Your task to perform on an android device: allow cookies in the chrome app Image 0: 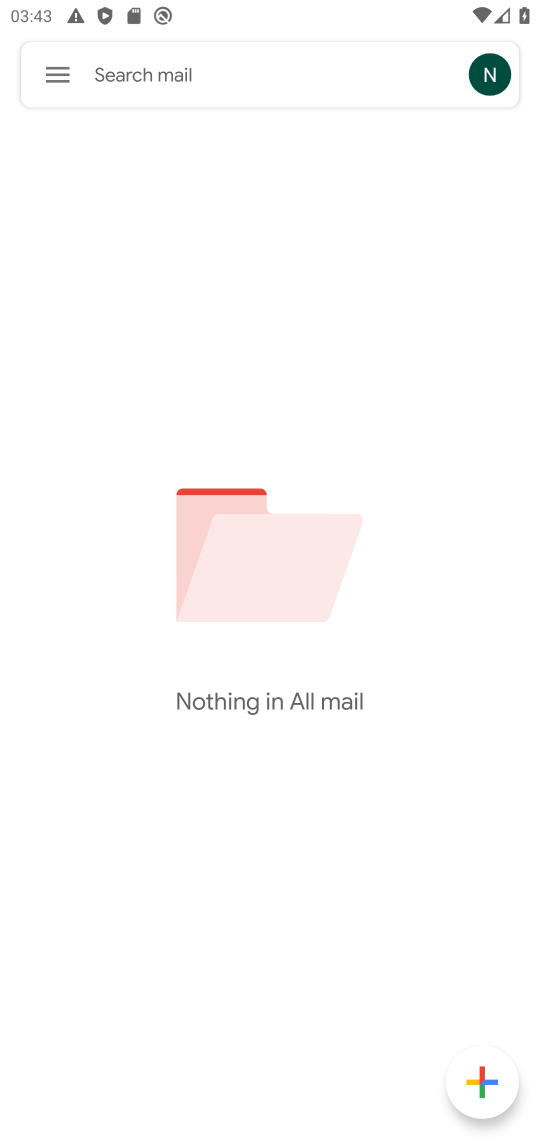
Step 0: press home button
Your task to perform on an android device: allow cookies in the chrome app Image 1: 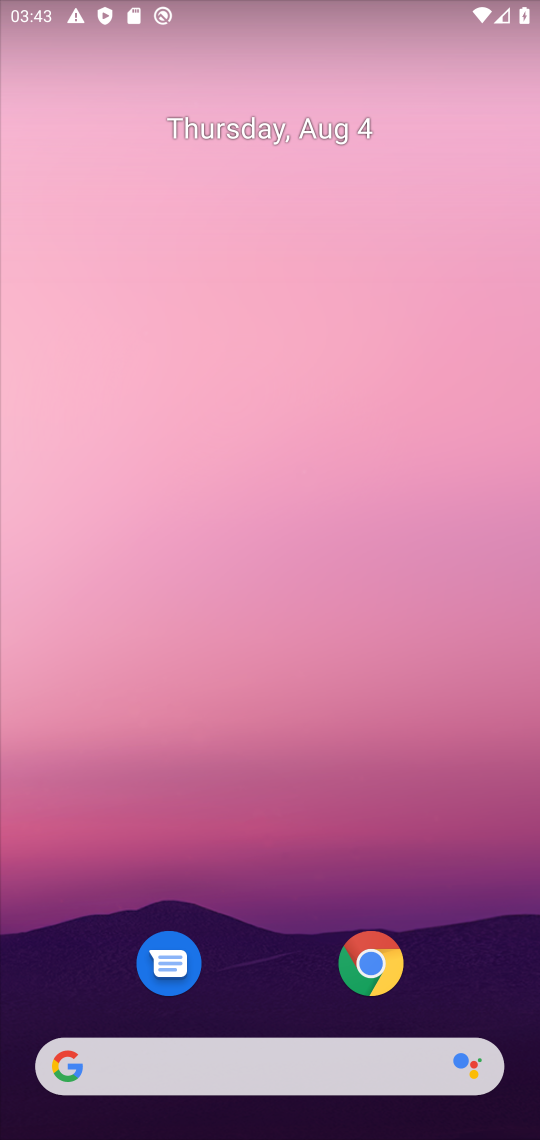
Step 1: click (366, 973)
Your task to perform on an android device: allow cookies in the chrome app Image 2: 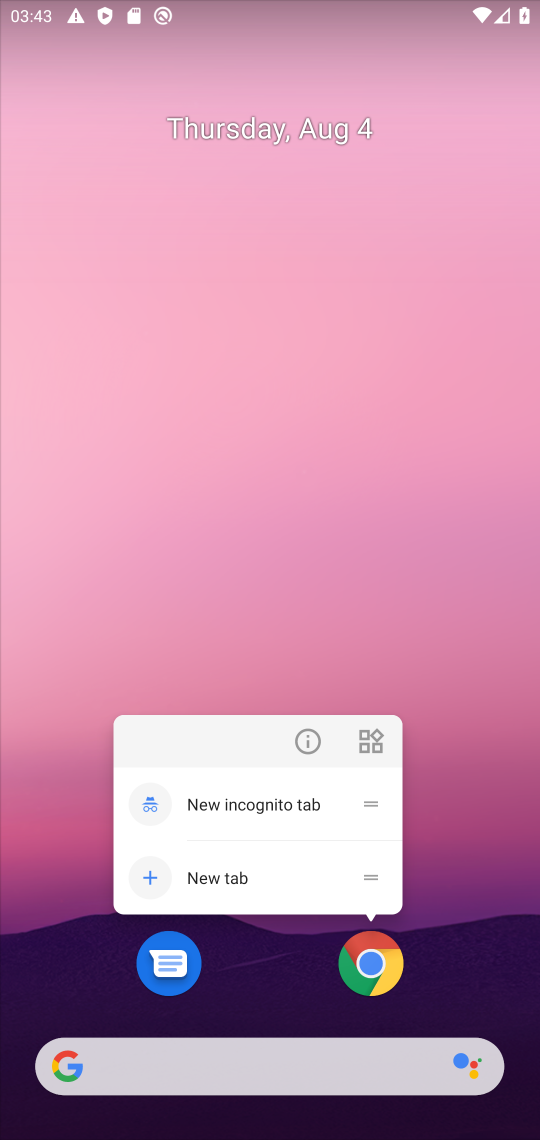
Step 2: click (385, 963)
Your task to perform on an android device: allow cookies in the chrome app Image 3: 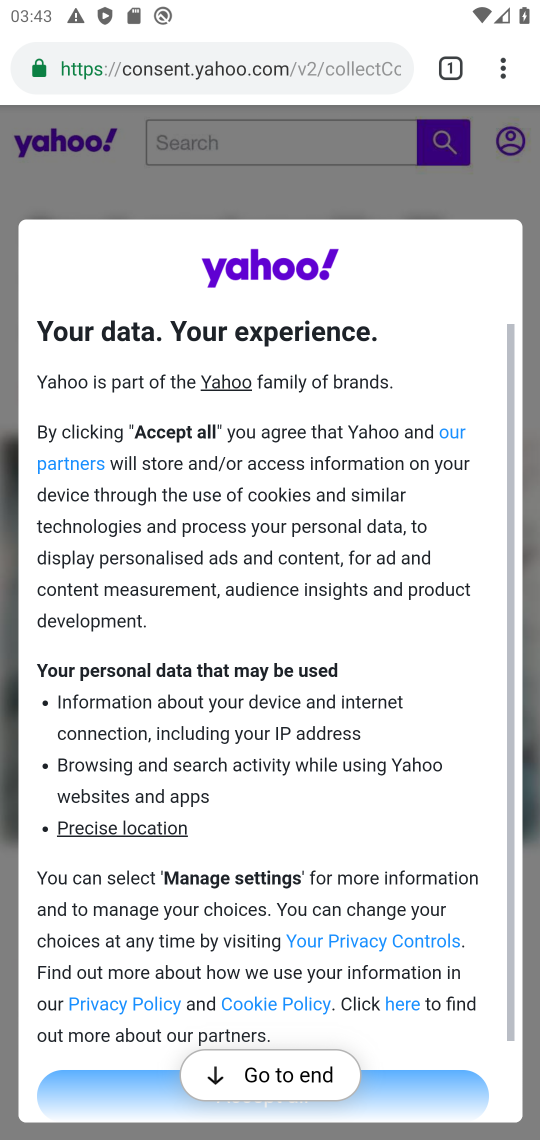
Step 3: click (506, 71)
Your task to perform on an android device: allow cookies in the chrome app Image 4: 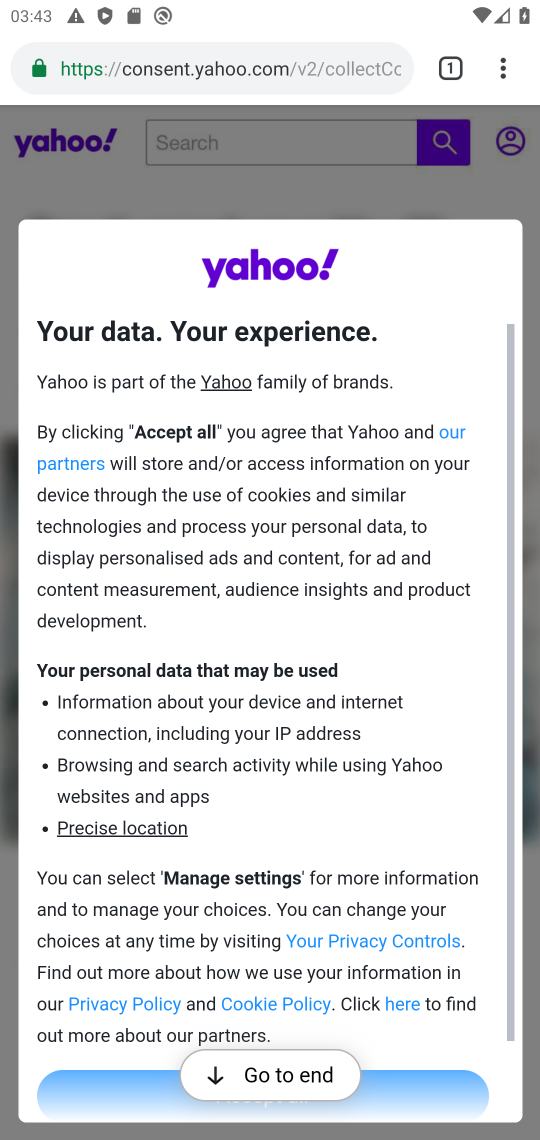
Step 4: drag from (500, 71) to (260, 822)
Your task to perform on an android device: allow cookies in the chrome app Image 5: 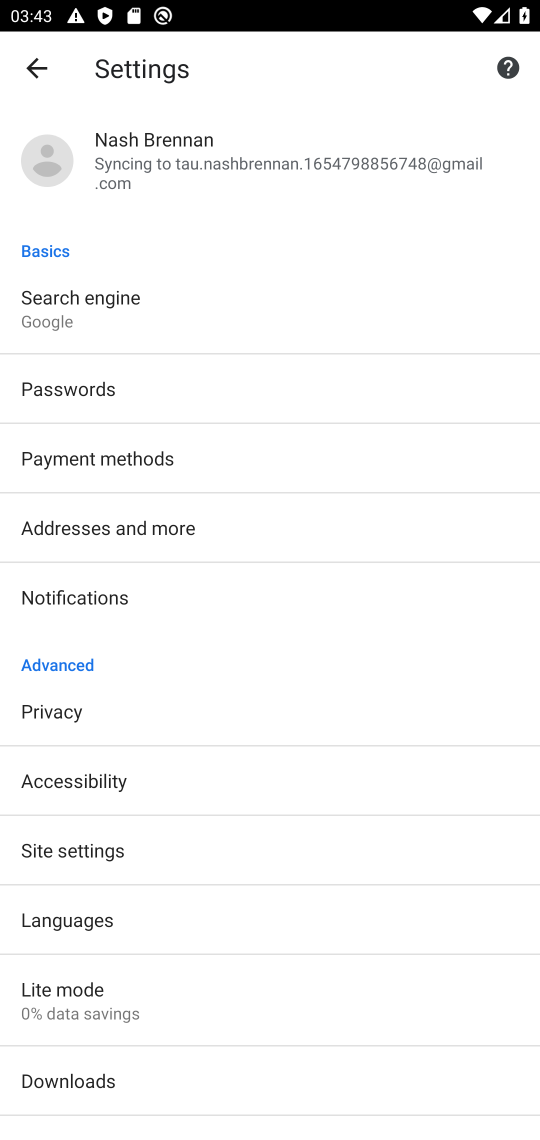
Step 5: drag from (229, 949) to (238, 706)
Your task to perform on an android device: allow cookies in the chrome app Image 6: 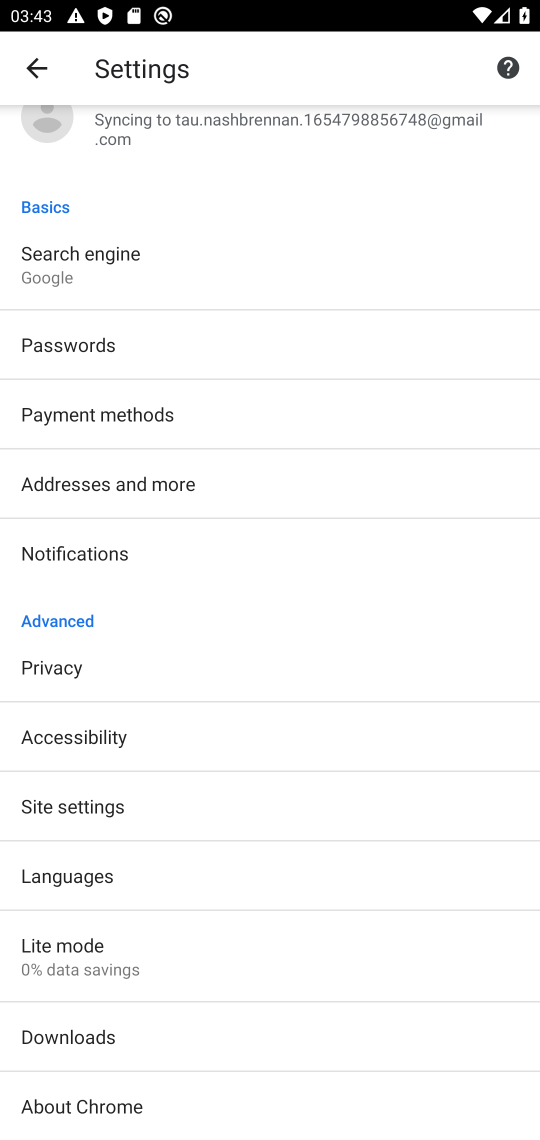
Step 6: click (84, 811)
Your task to perform on an android device: allow cookies in the chrome app Image 7: 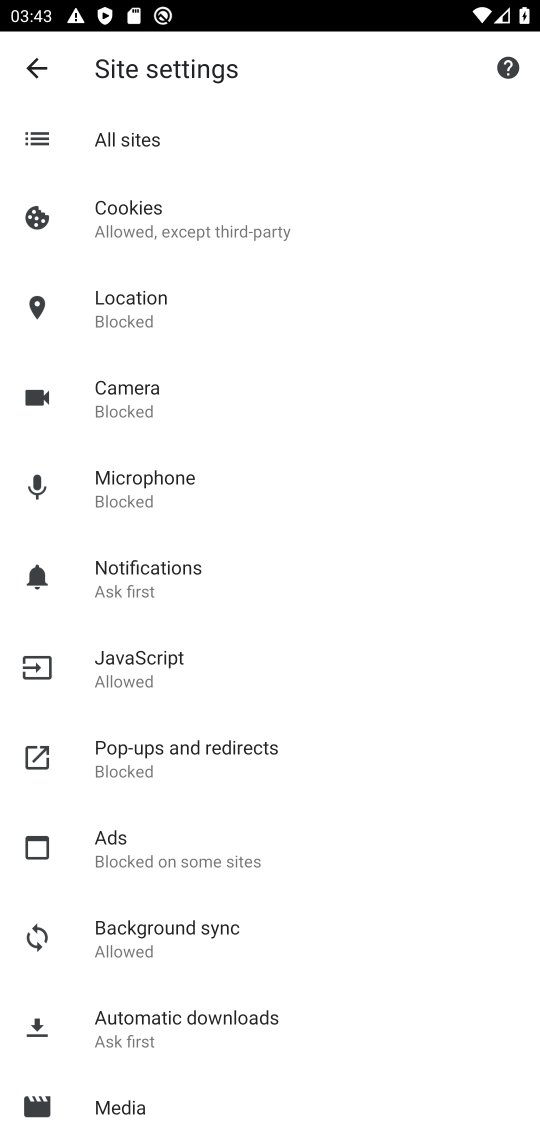
Step 7: click (144, 228)
Your task to perform on an android device: allow cookies in the chrome app Image 8: 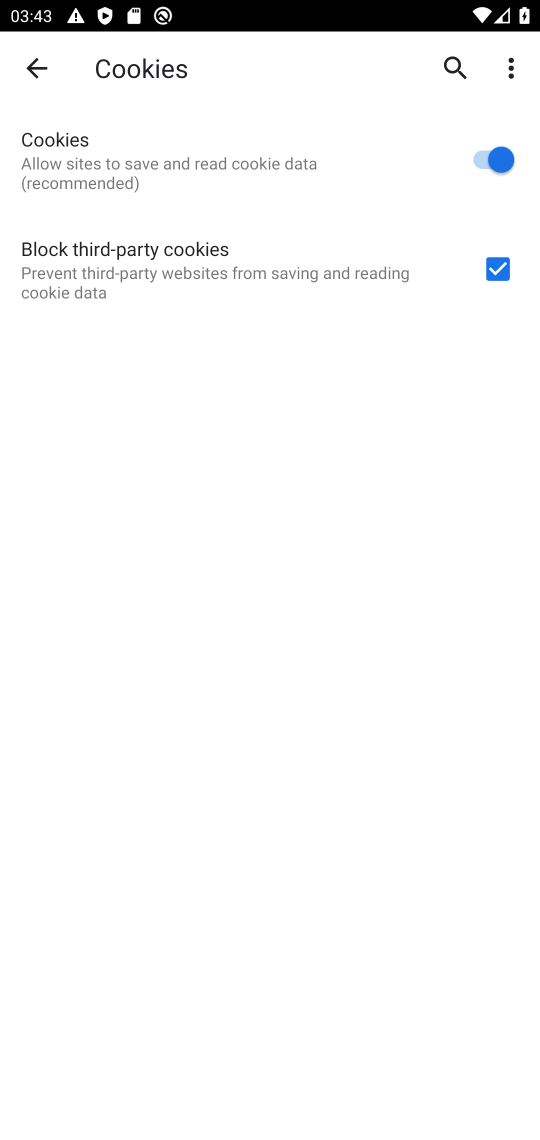
Step 8: task complete